Your task to perform on an android device: turn on sleep mode Image 0: 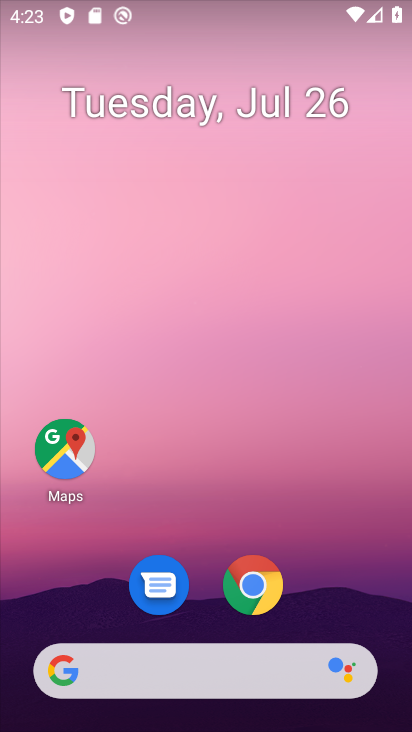
Step 0: drag from (347, 604) to (311, 77)
Your task to perform on an android device: turn on sleep mode Image 1: 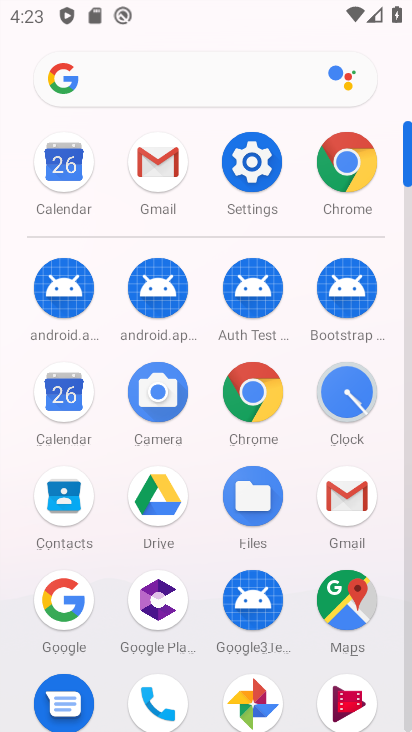
Step 1: click (67, 157)
Your task to perform on an android device: turn on sleep mode Image 2: 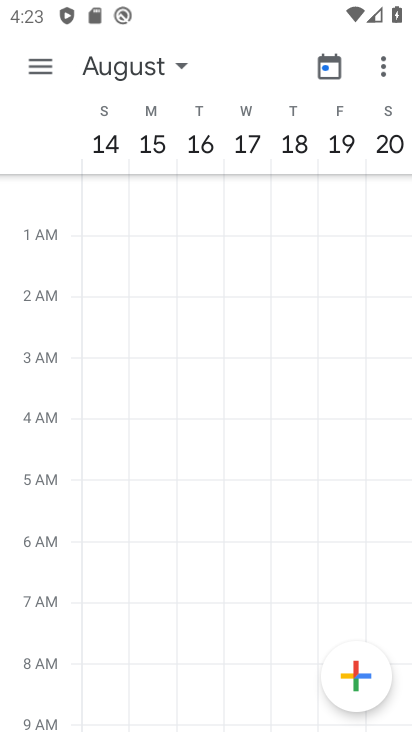
Step 2: press back button
Your task to perform on an android device: turn on sleep mode Image 3: 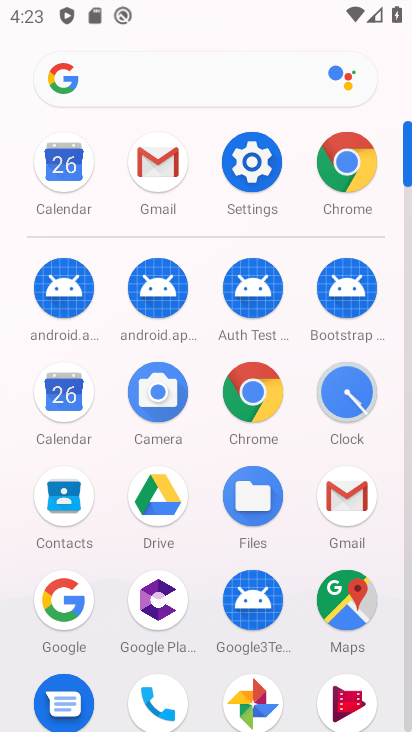
Step 3: click (262, 158)
Your task to perform on an android device: turn on sleep mode Image 4: 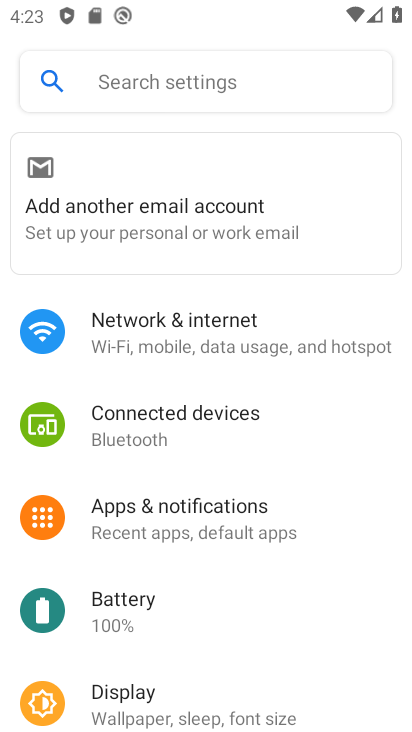
Step 4: drag from (176, 615) to (206, 400)
Your task to perform on an android device: turn on sleep mode Image 5: 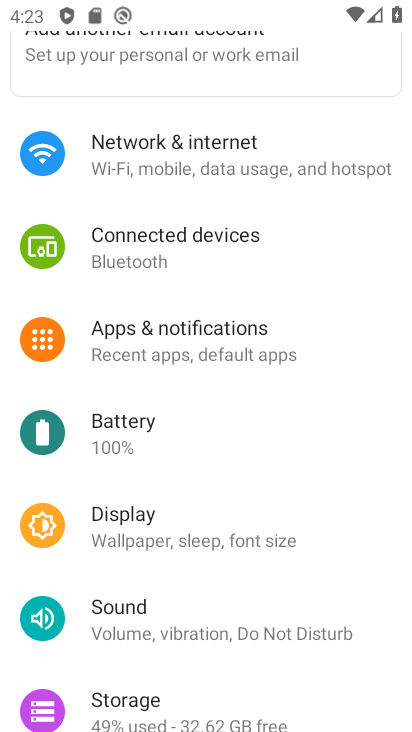
Step 5: click (194, 544)
Your task to perform on an android device: turn on sleep mode Image 6: 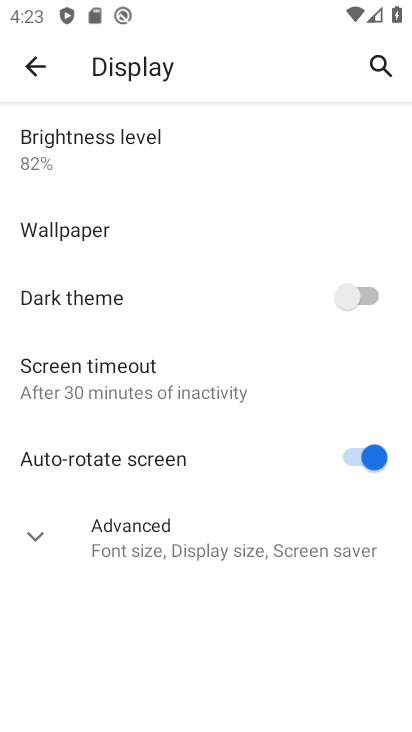
Step 6: click (30, 520)
Your task to perform on an android device: turn on sleep mode Image 7: 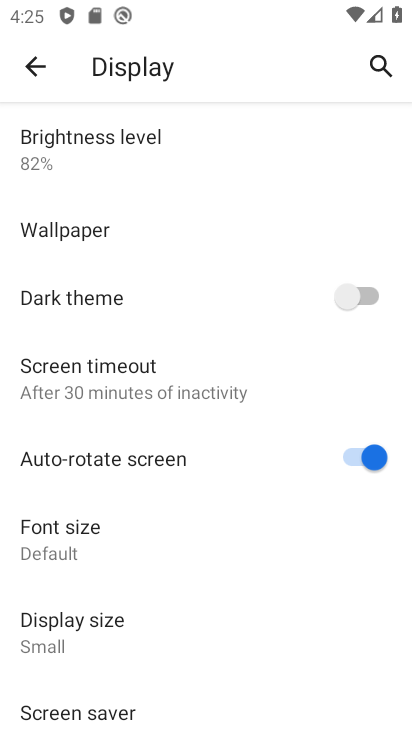
Step 7: task complete